Your task to perform on an android device: open chrome and create a bookmark for the current page Image 0: 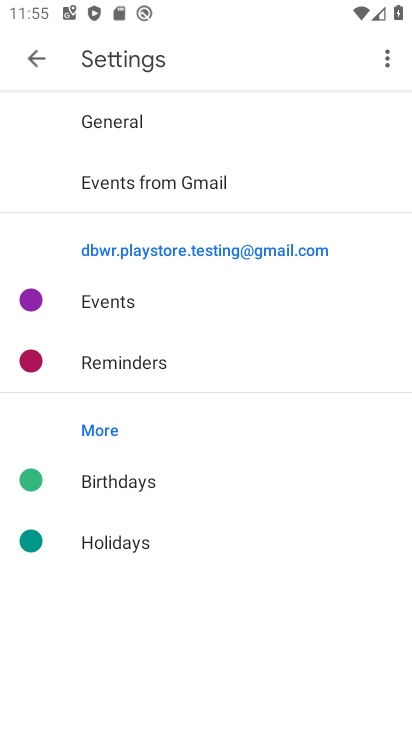
Step 0: press home button
Your task to perform on an android device: open chrome and create a bookmark for the current page Image 1: 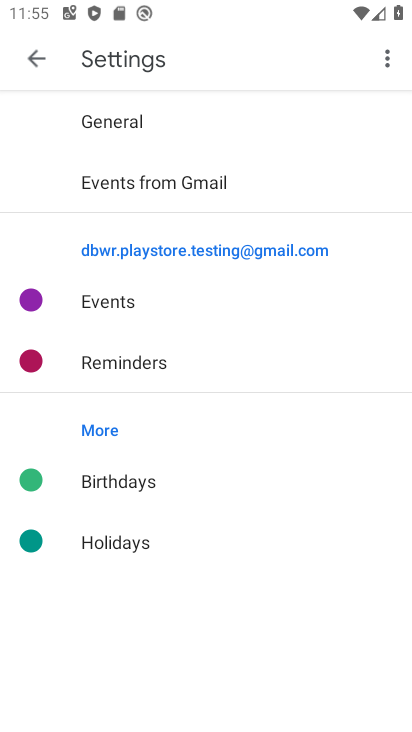
Step 1: press home button
Your task to perform on an android device: open chrome and create a bookmark for the current page Image 2: 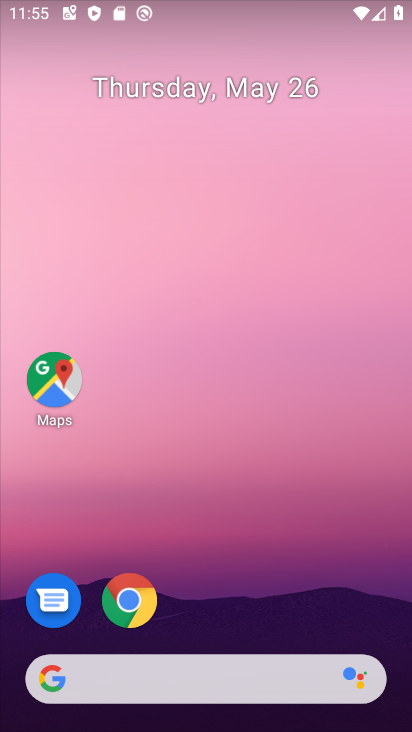
Step 2: click (127, 596)
Your task to perform on an android device: open chrome and create a bookmark for the current page Image 3: 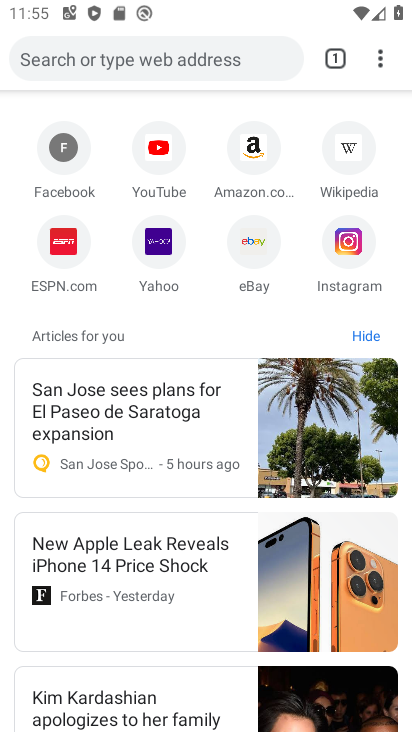
Step 3: click (386, 56)
Your task to perform on an android device: open chrome and create a bookmark for the current page Image 4: 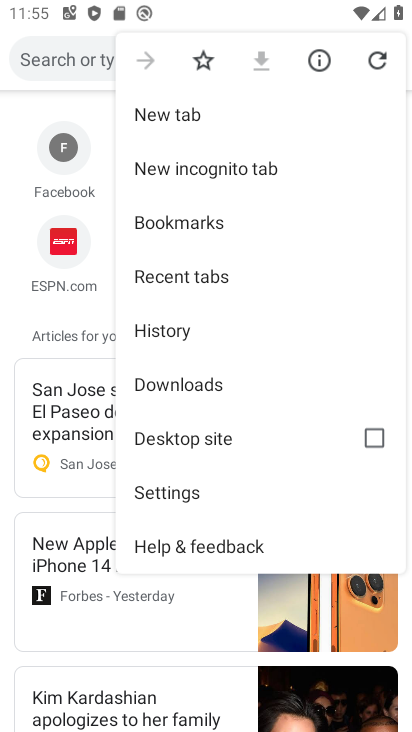
Step 4: click (204, 65)
Your task to perform on an android device: open chrome and create a bookmark for the current page Image 5: 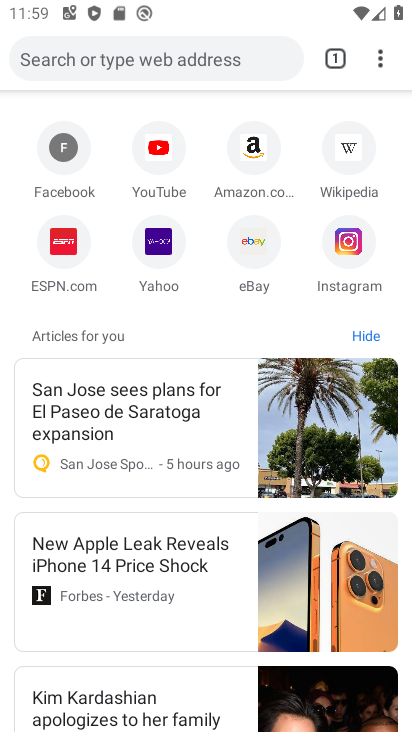
Step 5: click (386, 58)
Your task to perform on an android device: open chrome and create a bookmark for the current page Image 6: 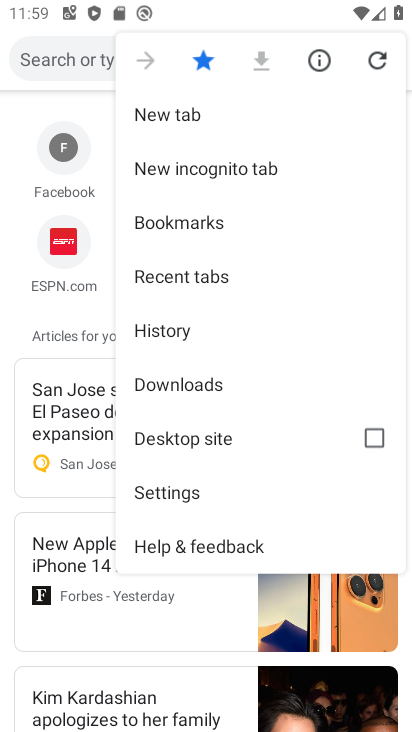
Step 6: task complete